Your task to perform on an android device: Open calendar and show me the second week of next month Image 0: 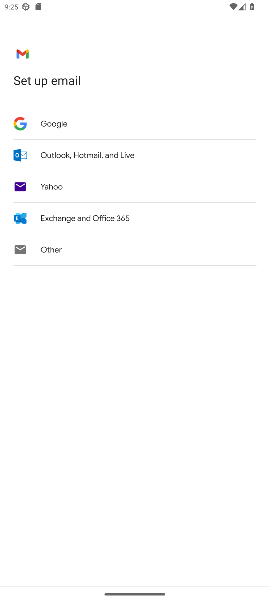
Step 0: press home button
Your task to perform on an android device: Open calendar and show me the second week of next month Image 1: 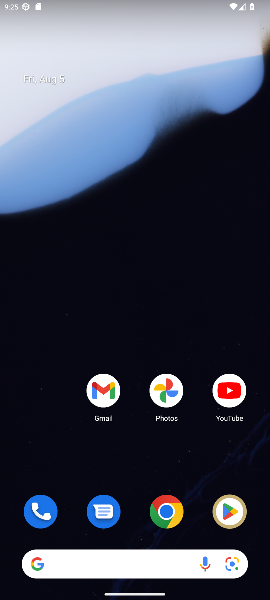
Step 1: drag from (89, 560) to (111, 287)
Your task to perform on an android device: Open calendar and show me the second week of next month Image 2: 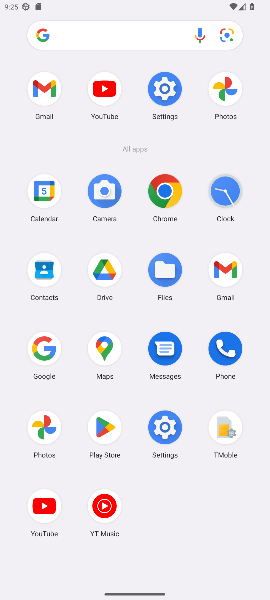
Step 2: click (45, 190)
Your task to perform on an android device: Open calendar and show me the second week of next month Image 3: 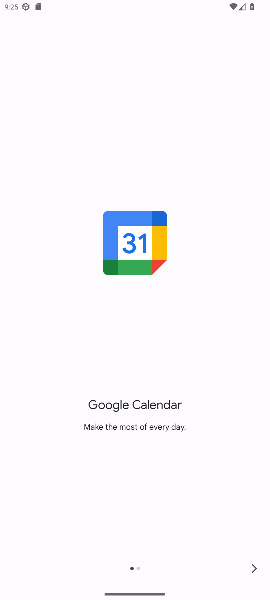
Step 3: click (255, 565)
Your task to perform on an android device: Open calendar and show me the second week of next month Image 4: 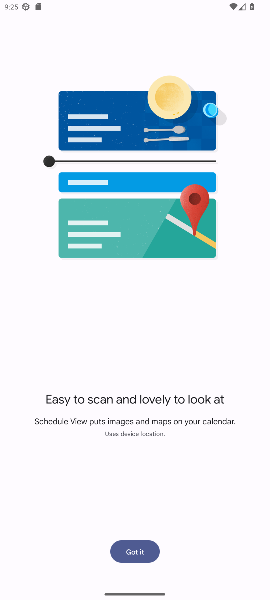
Step 4: click (136, 551)
Your task to perform on an android device: Open calendar and show me the second week of next month Image 5: 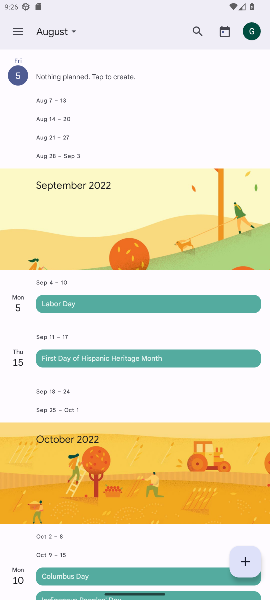
Step 5: click (73, 32)
Your task to perform on an android device: Open calendar and show me the second week of next month Image 6: 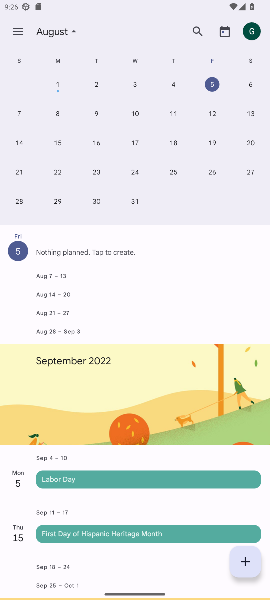
Step 6: drag from (243, 125) to (0, 130)
Your task to perform on an android device: Open calendar and show me the second week of next month Image 7: 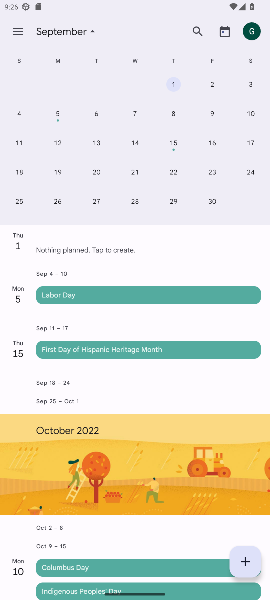
Step 7: click (59, 145)
Your task to perform on an android device: Open calendar and show me the second week of next month Image 8: 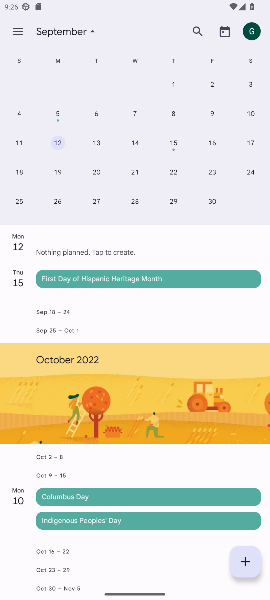
Step 8: click (22, 29)
Your task to perform on an android device: Open calendar and show me the second week of next month Image 9: 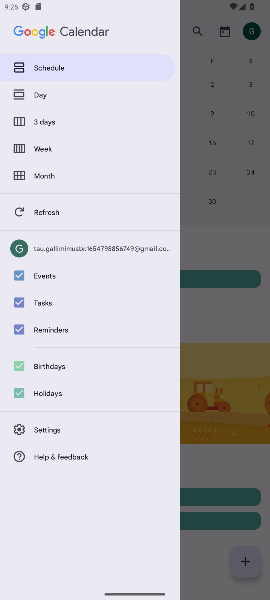
Step 9: click (43, 148)
Your task to perform on an android device: Open calendar and show me the second week of next month Image 10: 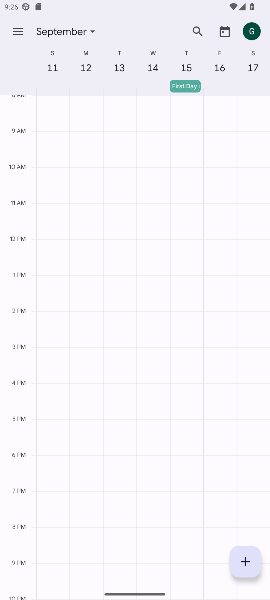
Step 10: task complete